Your task to perform on an android device: Is it going to rain today? Image 0: 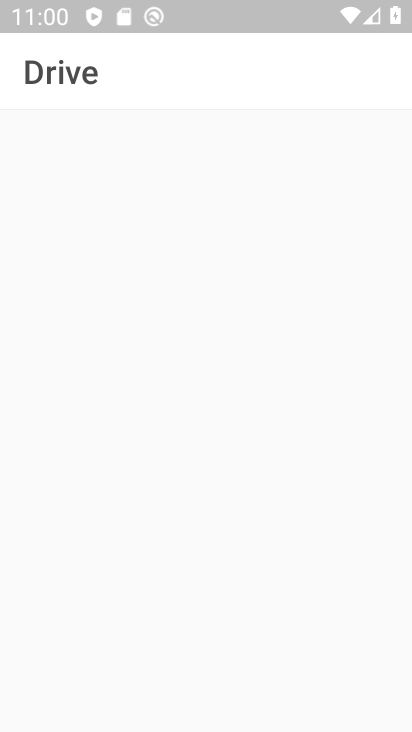
Step 0: press home button
Your task to perform on an android device: Is it going to rain today? Image 1: 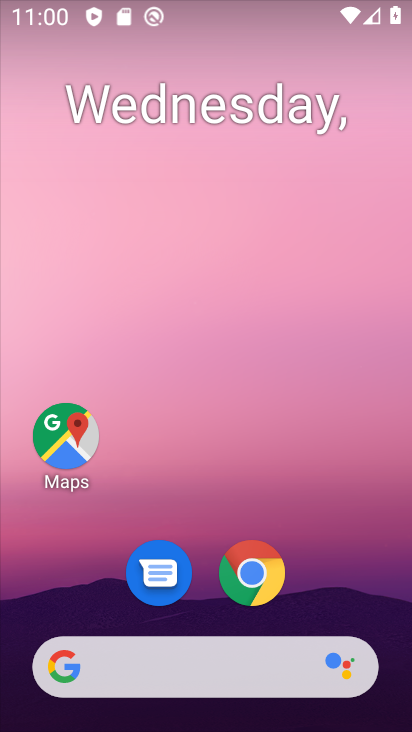
Step 1: click (272, 582)
Your task to perform on an android device: Is it going to rain today? Image 2: 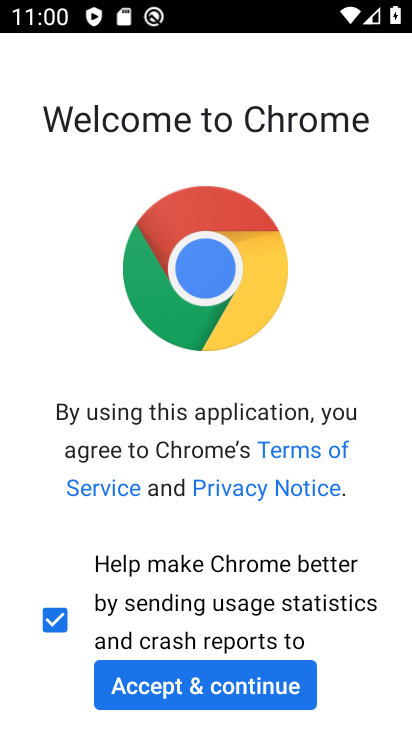
Step 2: click (271, 699)
Your task to perform on an android device: Is it going to rain today? Image 3: 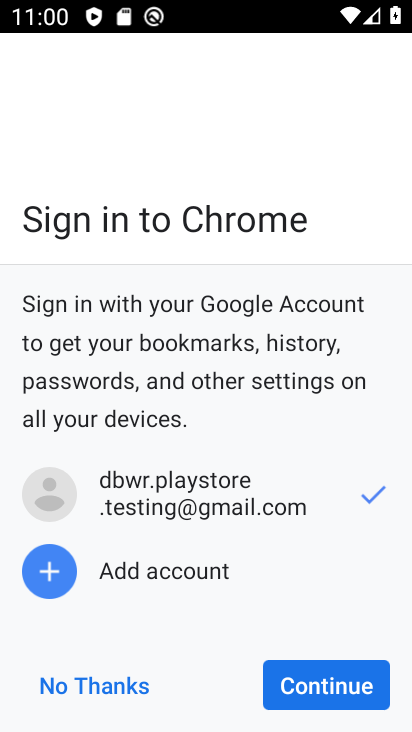
Step 3: click (309, 689)
Your task to perform on an android device: Is it going to rain today? Image 4: 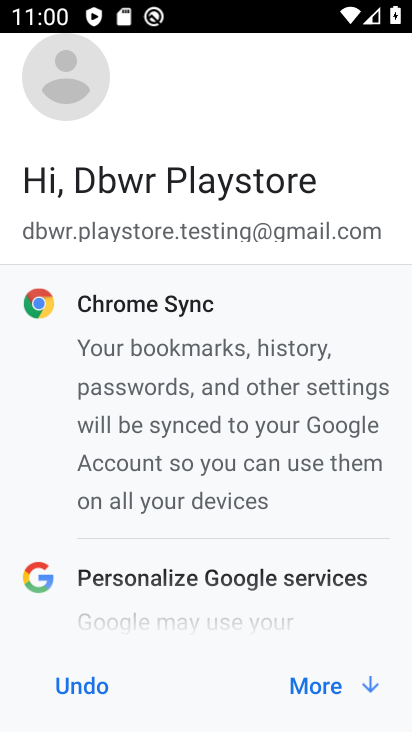
Step 4: click (309, 689)
Your task to perform on an android device: Is it going to rain today? Image 5: 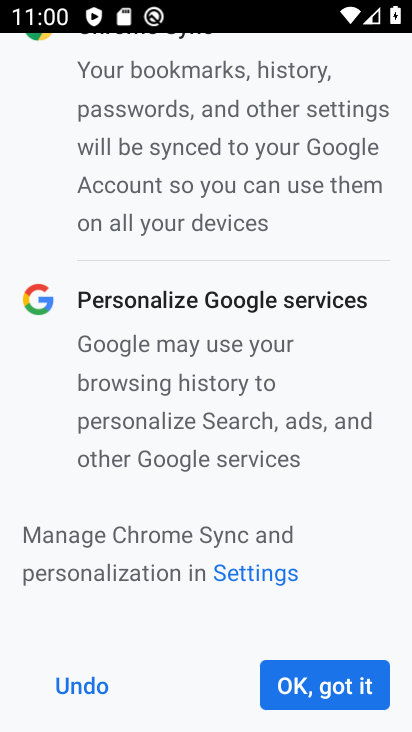
Step 5: click (309, 689)
Your task to perform on an android device: Is it going to rain today? Image 6: 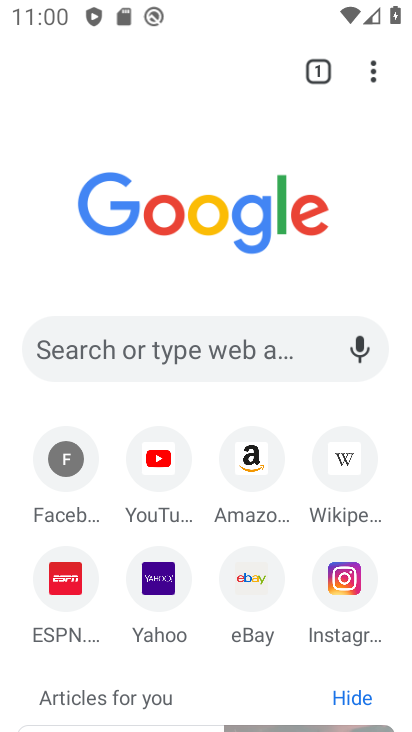
Step 6: click (206, 342)
Your task to perform on an android device: Is it going to rain today? Image 7: 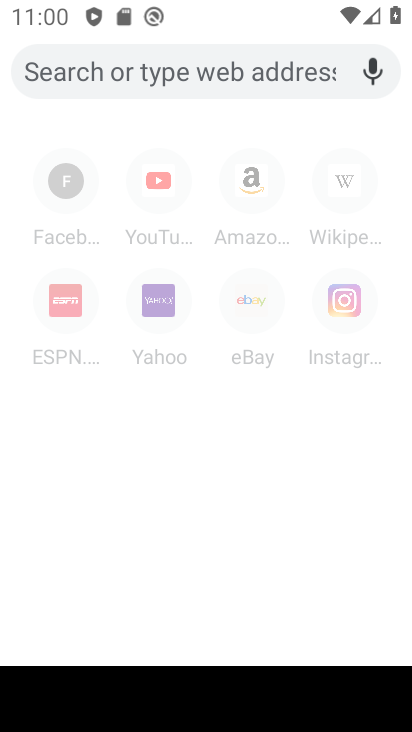
Step 7: type "Is it going to rain today?"
Your task to perform on an android device: Is it going to rain today? Image 8: 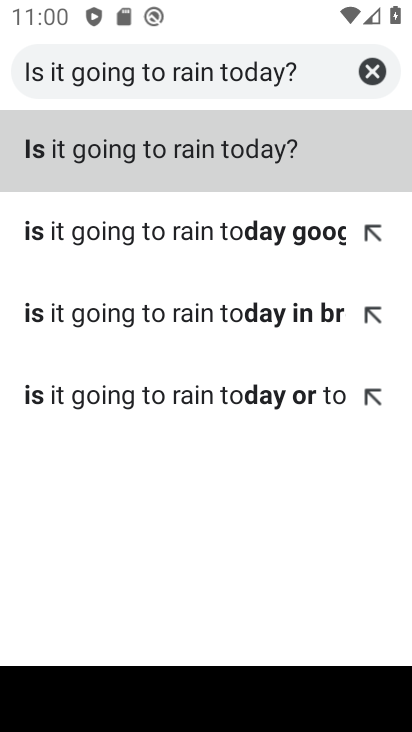
Step 8: click (162, 136)
Your task to perform on an android device: Is it going to rain today? Image 9: 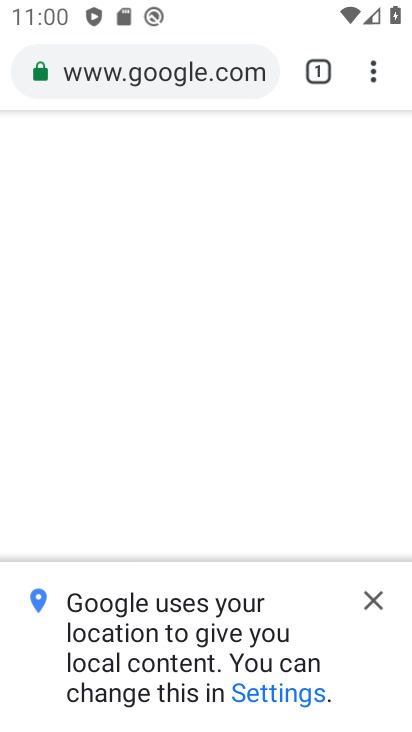
Step 9: click (377, 597)
Your task to perform on an android device: Is it going to rain today? Image 10: 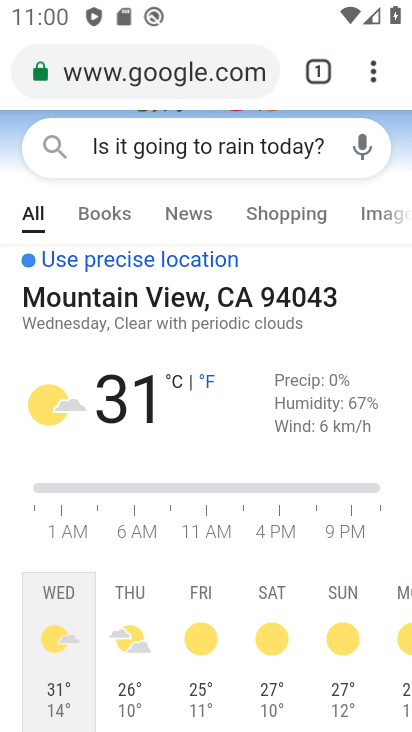
Step 10: click (121, 614)
Your task to perform on an android device: Is it going to rain today? Image 11: 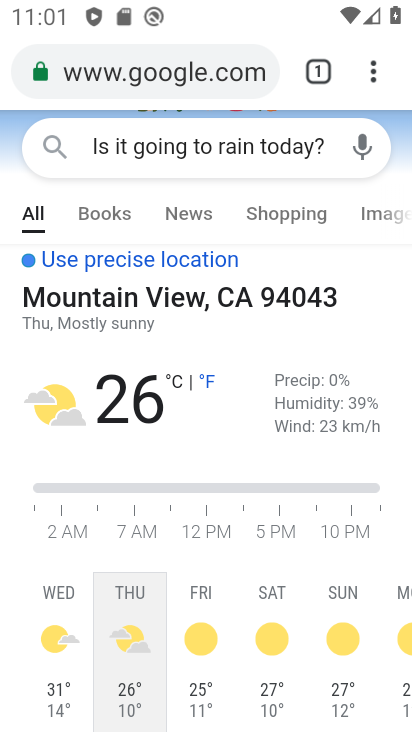
Step 11: task complete